Your task to perform on an android device: turn off sleep mode Image 0: 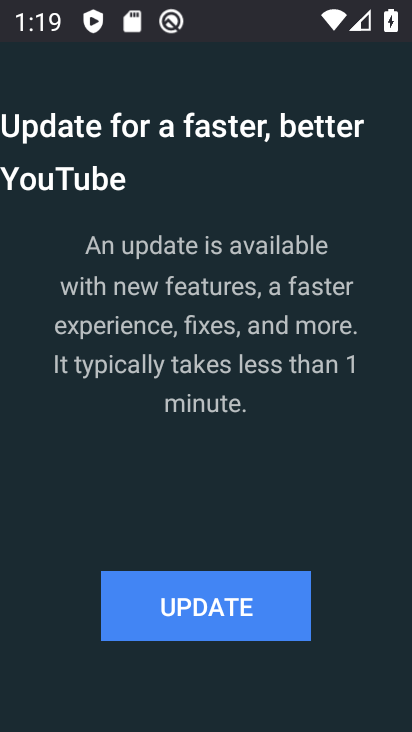
Step 0: press back button
Your task to perform on an android device: turn off sleep mode Image 1: 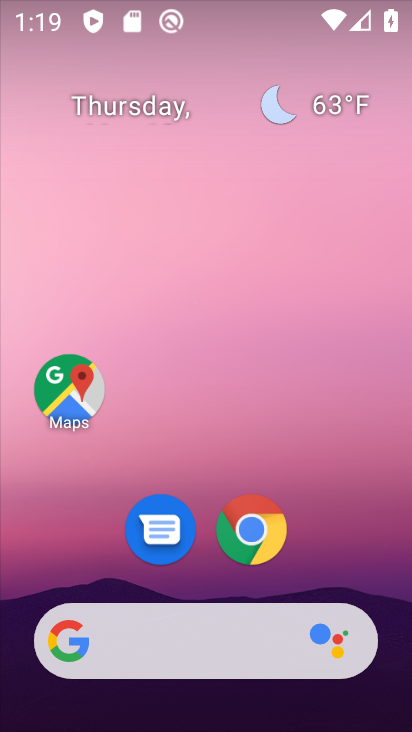
Step 1: drag from (321, 550) to (246, 109)
Your task to perform on an android device: turn off sleep mode Image 2: 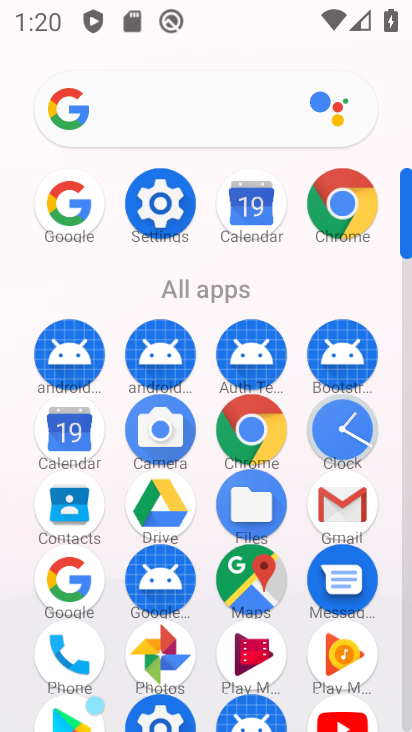
Step 2: click (161, 200)
Your task to perform on an android device: turn off sleep mode Image 3: 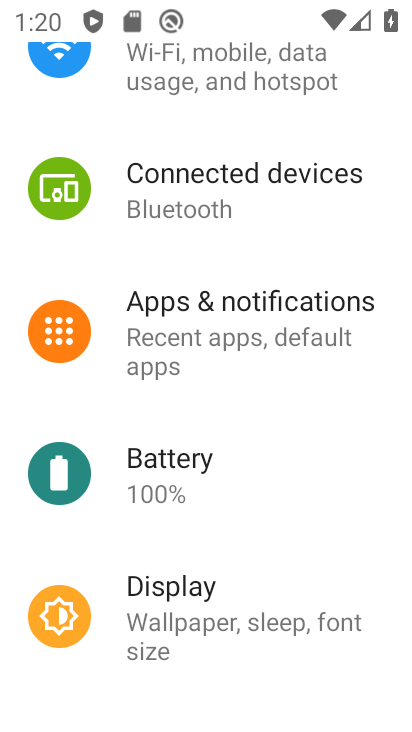
Step 3: drag from (234, 510) to (306, 412)
Your task to perform on an android device: turn off sleep mode Image 4: 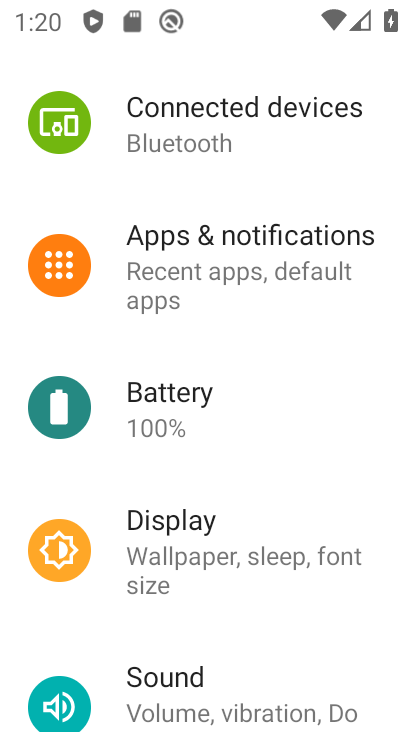
Step 4: click (230, 552)
Your task to perform on an android device: turn off sleep mode Image 5: 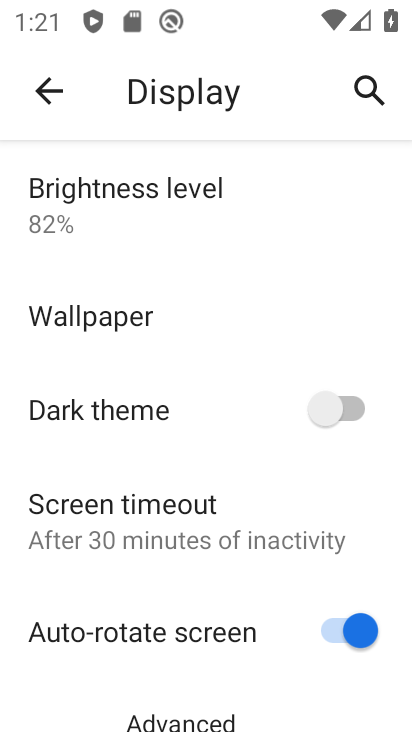
Step 5: click (155, 539)
Your task to perform on an android device: turn off sleep mode Image 6: 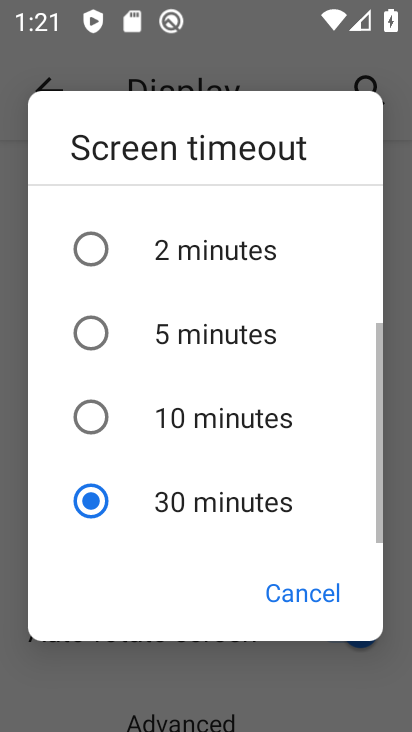
Step 6: drag from (180, 495) to (226, 230)
Your task to perform on an android device: turn off sleep mode Image 7: 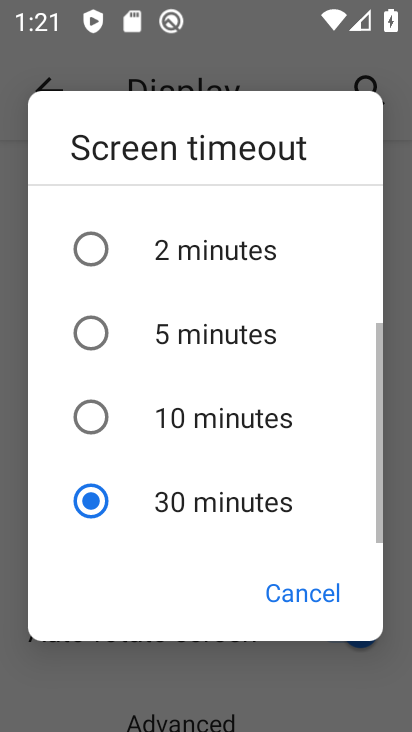
Step 7: drag from (225, 226) to (267, 508)
Your task to perform on an android device: turn off sleep mode Image 8: 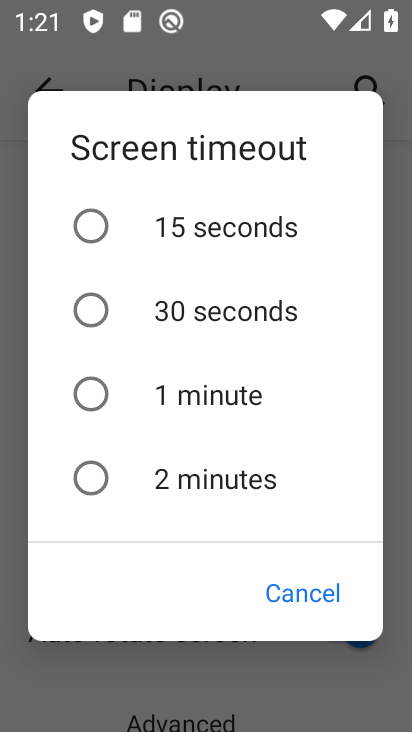
Step 8: drag from (236, 245) to (295, 537)
Your task to perform on an android device: turn off sleep mode Image 9: 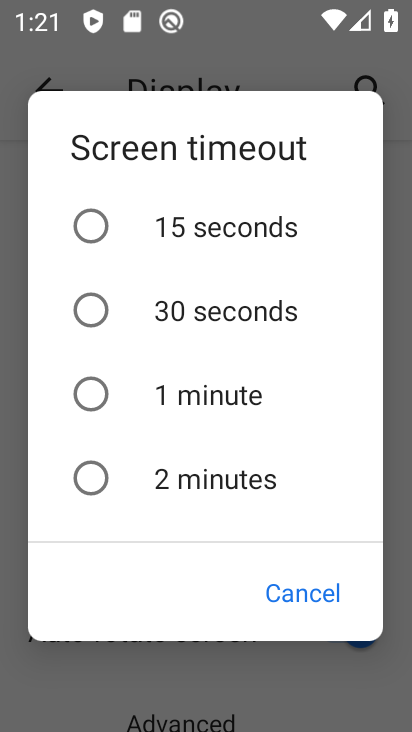
Step 9: click (316, 591)
Your task to perform on an android device: turn off sleep mode Image 10: 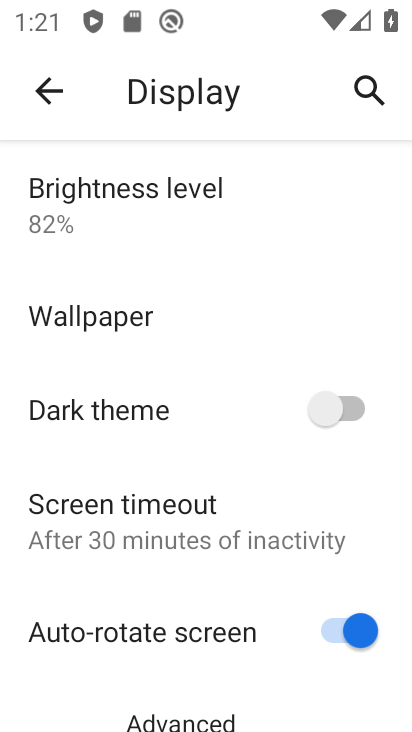
Step 10: drag from (240, 657) to (229, 406)
Your task to perform on an android device: turn off sleep mode Image 11: 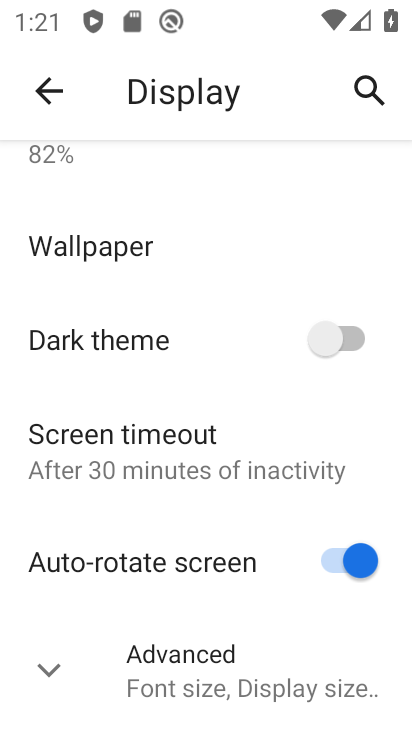
Step 11: click (229, 665)
Your task to perform on an android device: turn off sleep mode Image 12: 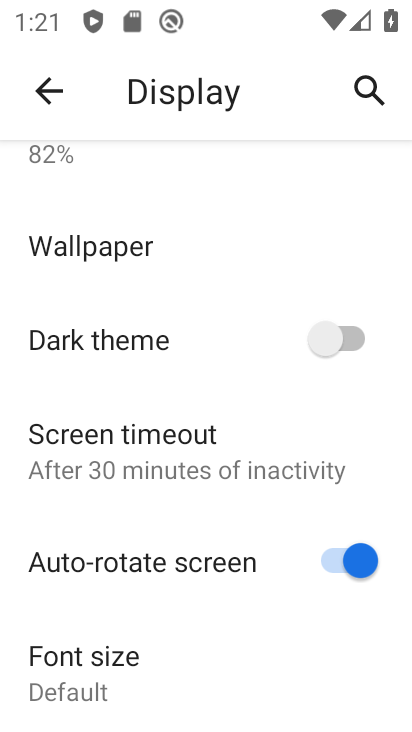
Step 12: task complete